Your task to perform on an android device: install app "TextNow: Call + Text Unlimited" Image 0: 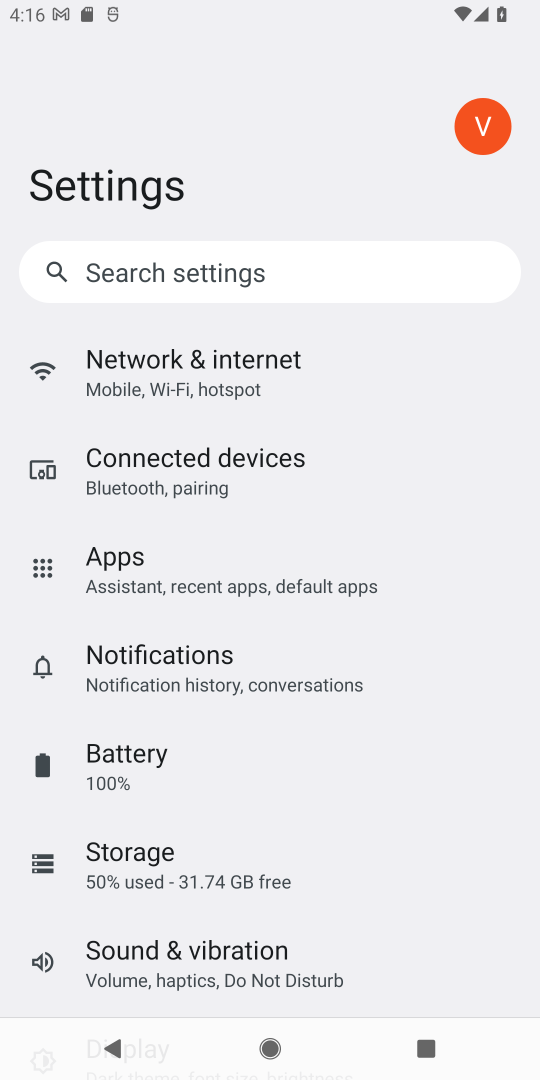
Step 0: press home button
Your task to perform on an android device: install app "TextNow: Call + Text Unlimited" Image 1: 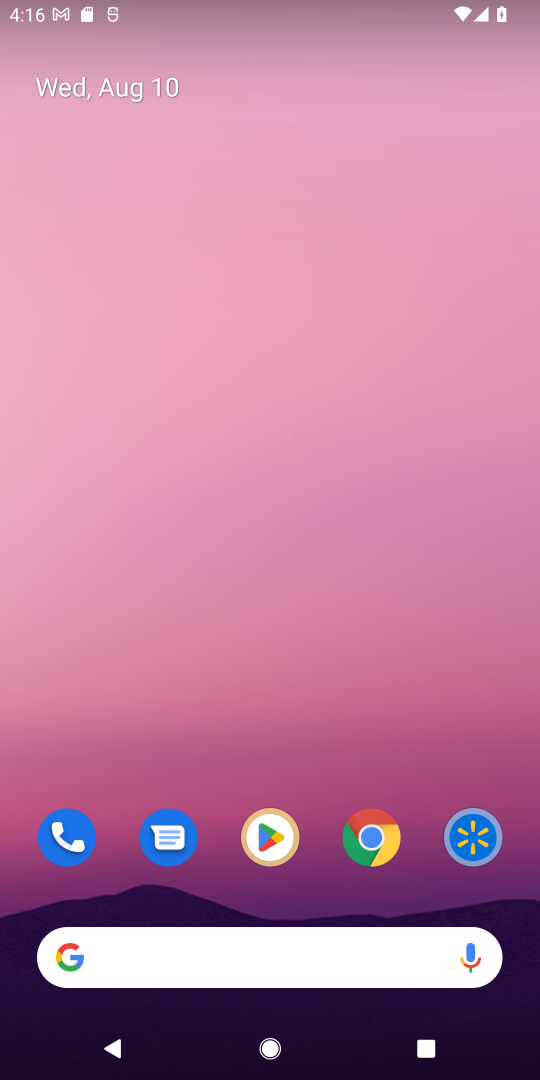
Step 1: click (268, 833)
Your task to perform on an android device: install app "TextNow: Call + Text Unlimited" Image 2: 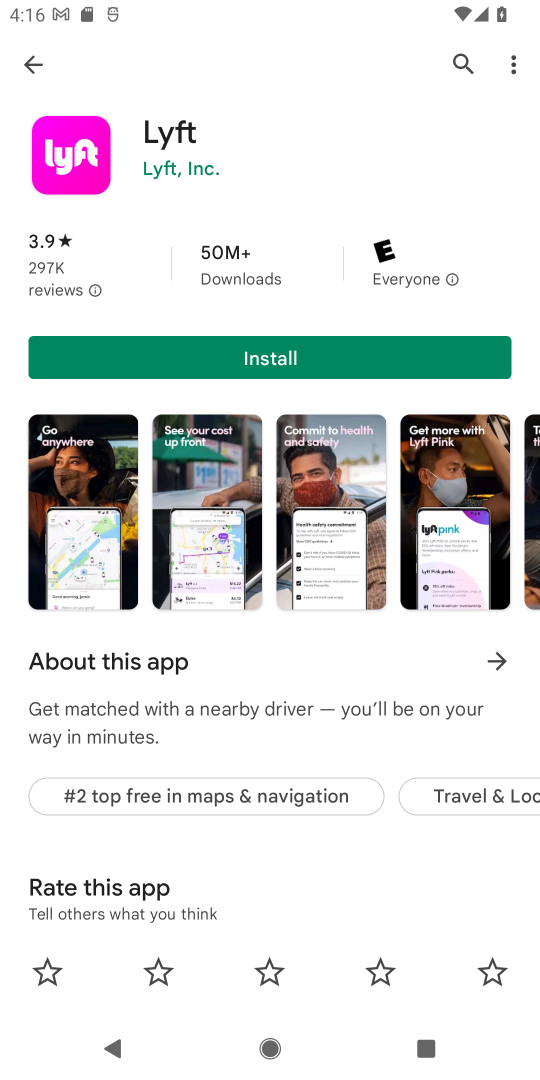
Step 2: click (455, 54)
Your task to perform on an android device: install app "TextNow: Call + Text Unlimited" Image 3: 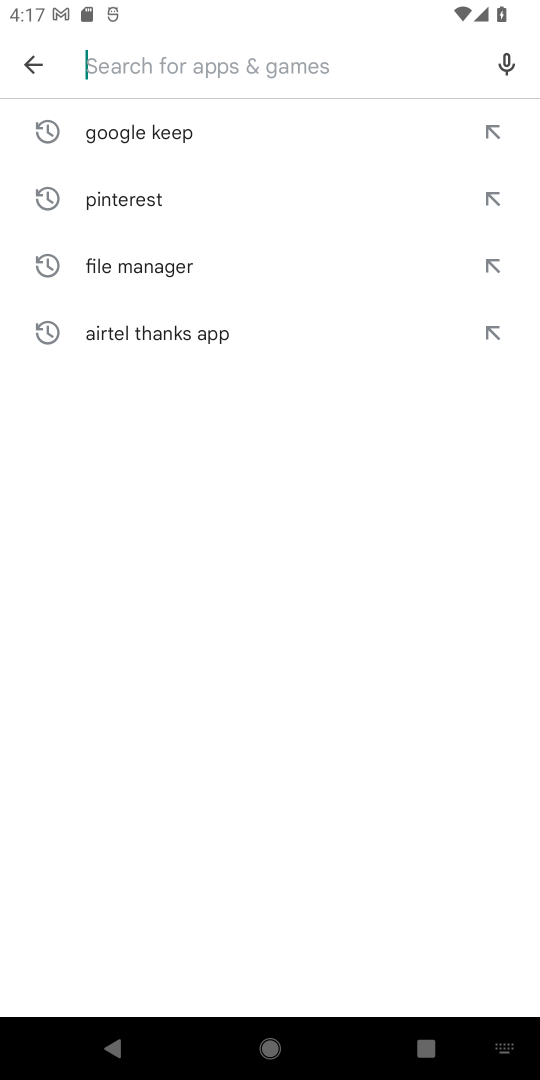
Step 3: type "TextNow: Call + Text Unlimited"
Your task to perform on an android device: install app "TextNow: Call + Text Unlimited" Image 4: 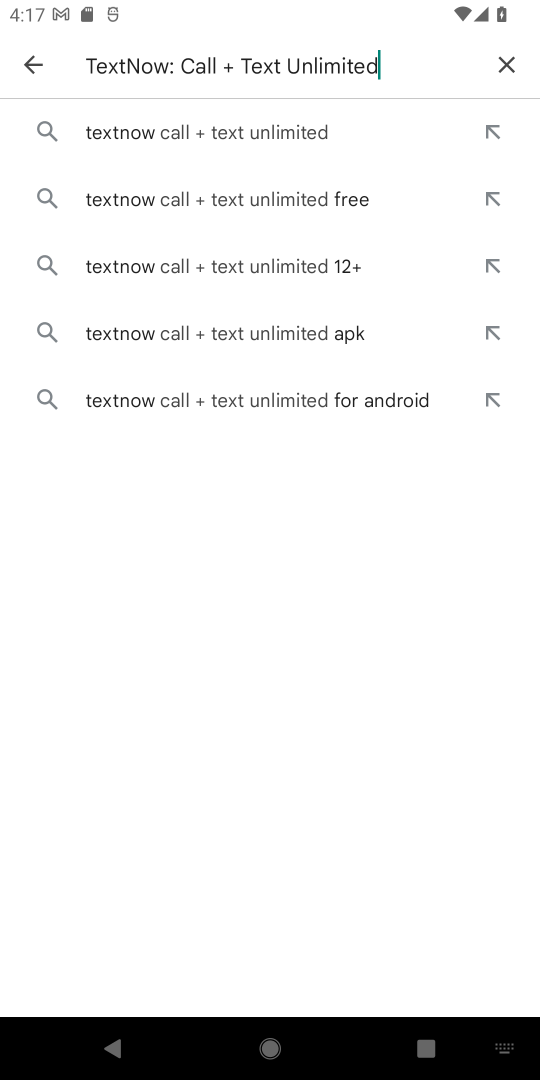
Step 4: click (214, 126)
Your task to perform on an android device: install app "TextNow: Call + Text Unlimited" Image 5: 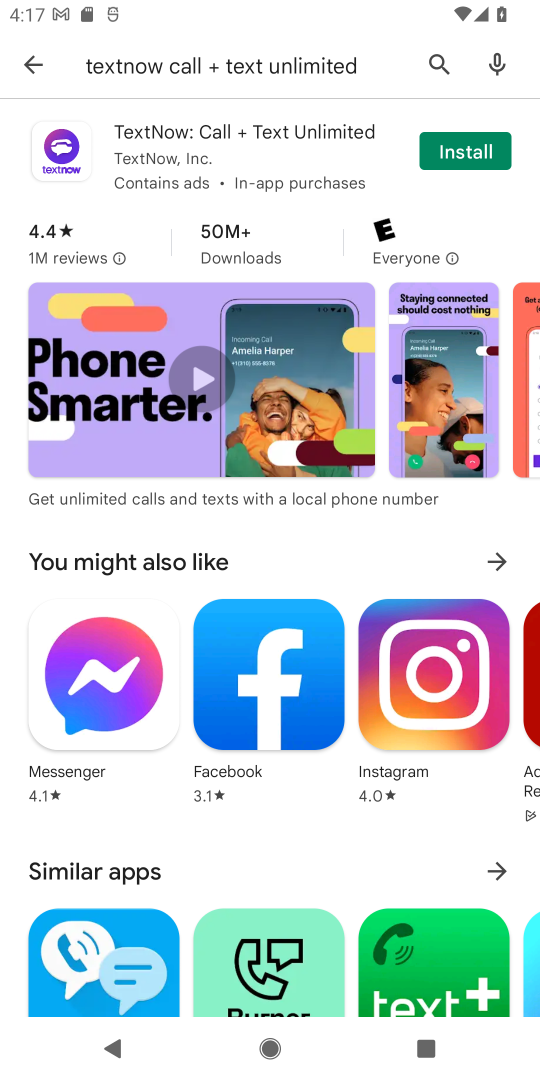
Step 5: click (467, 148)
Your task to perform on an android device: install app "TextNow: Call + Text Unlimited" Image 6: 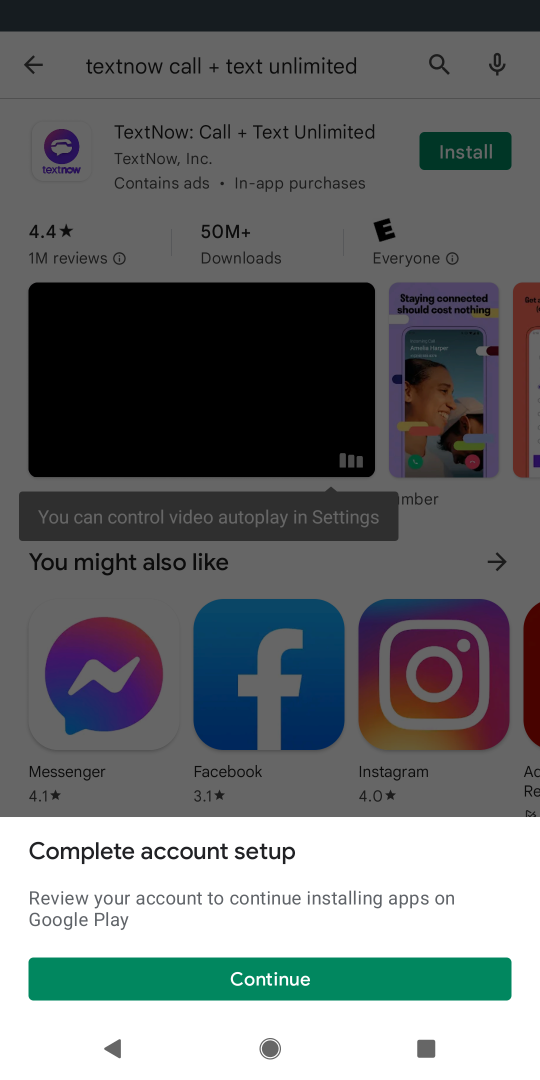
Step 6: click (274, 982)
Your task to perform on an android device: install app "TextNow: Call + Text Unlimited" Image 7: 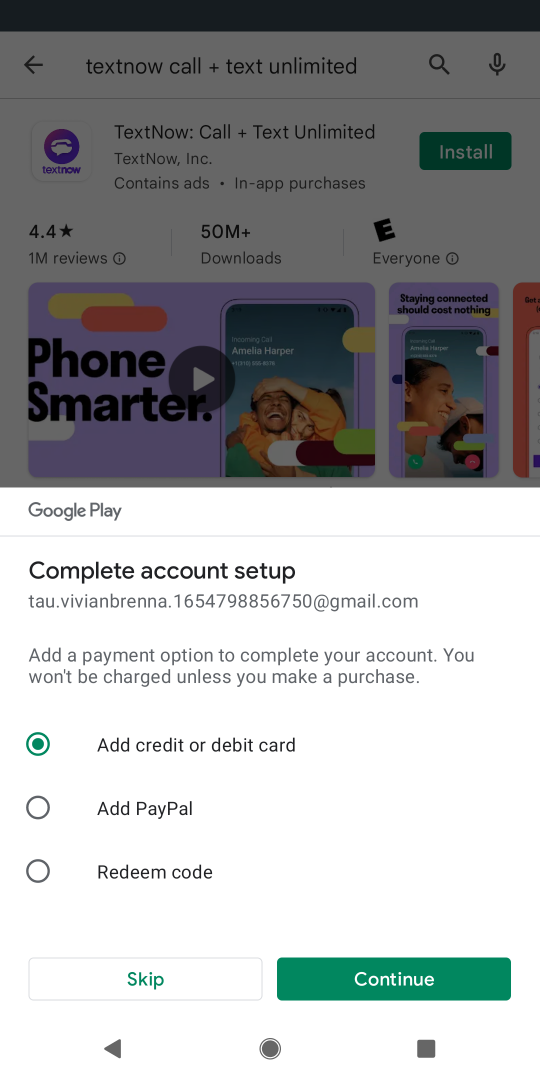
Step 7: click (175, 986)
Your task to perform on an android device: install app "TextNow: Call + Text Unlimited" Image 8: 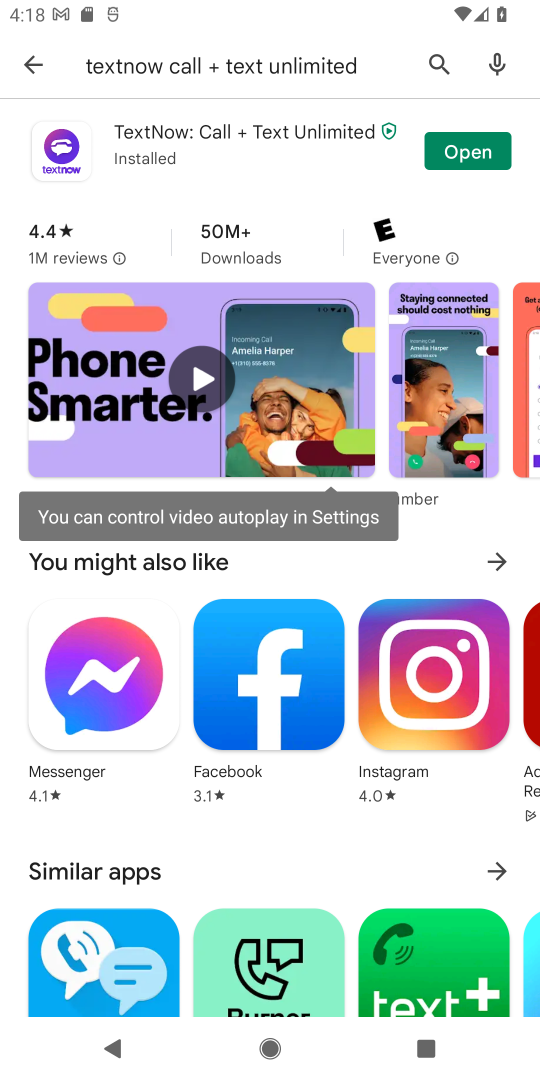
Step 8: task complete